Your task to perform on an android device: Open calendar and show me the fourth week of next month Image 0: 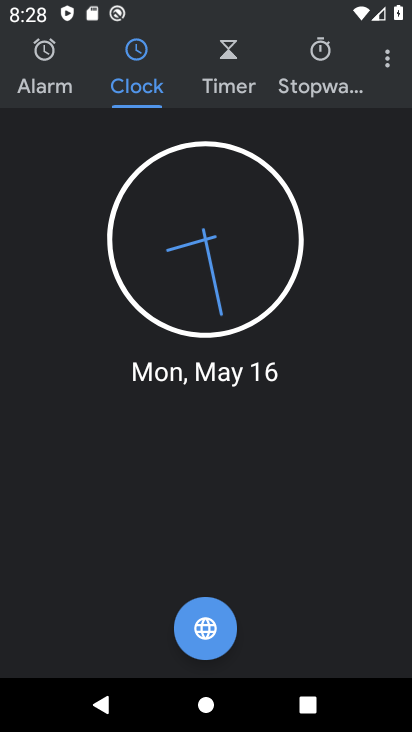
Step 0: press home button
Your task to perform on an android device: Open calendar and show me the fourth week of next month Image 1: 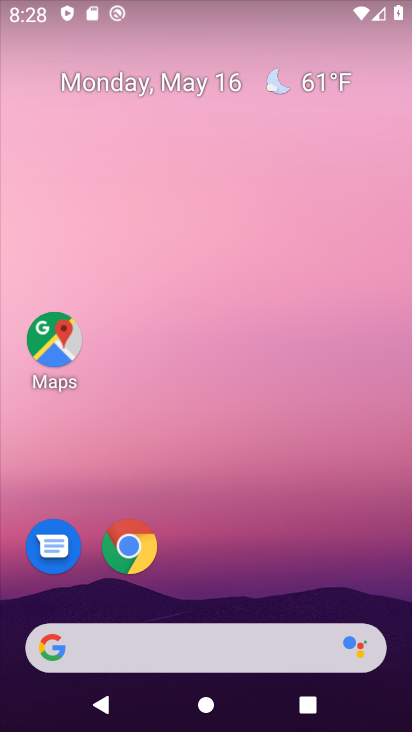
Step 1: drag from (278, 533) to (210, 222)
Your task to perform on an android device: Open calendar and show me the fourth week of next month Image 2: 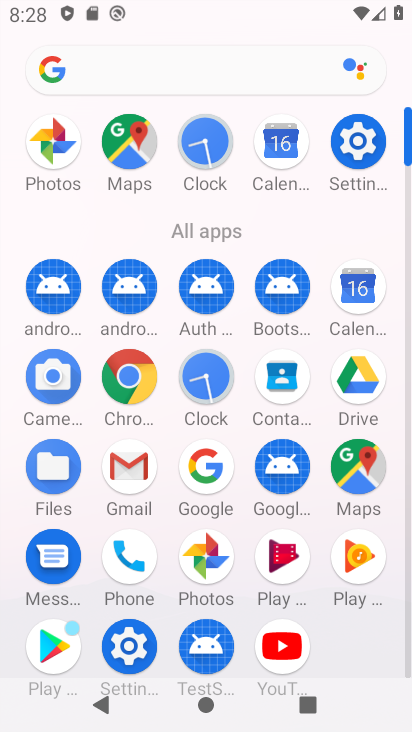
Step 2: click (352, 296)
Your task to perform on an android device: Open calendar and show me the fourth week of next month Image 3: 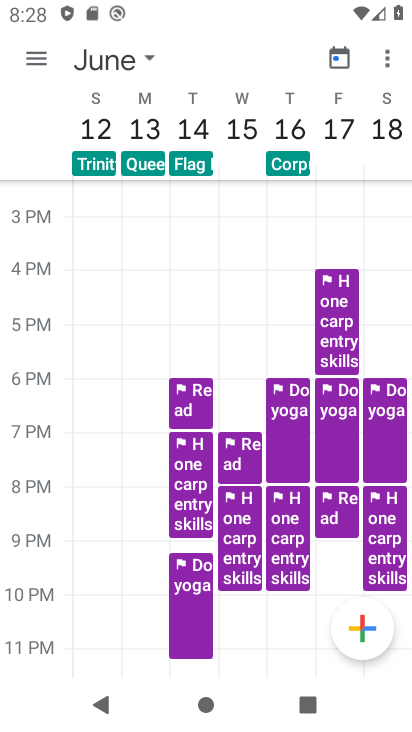
Step 3: click (35, 54)
Your task to perform on an android device: Open calendar and show me the fourth week of next month Image 4: 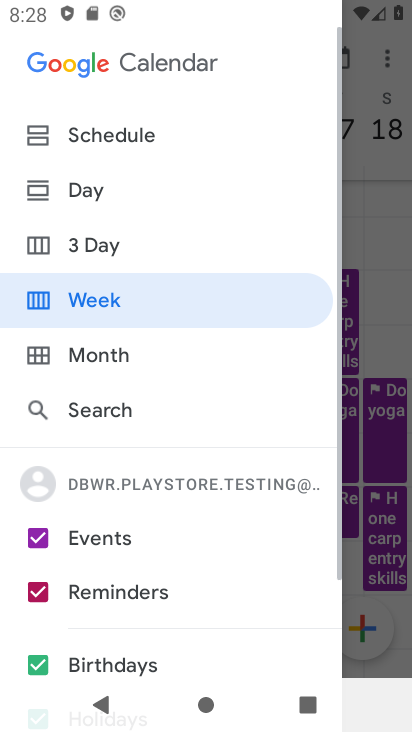
Step 4: click (381, 141)
Your task to perform on an android device: Open calendar and show me the fourth week of next month Image 5: 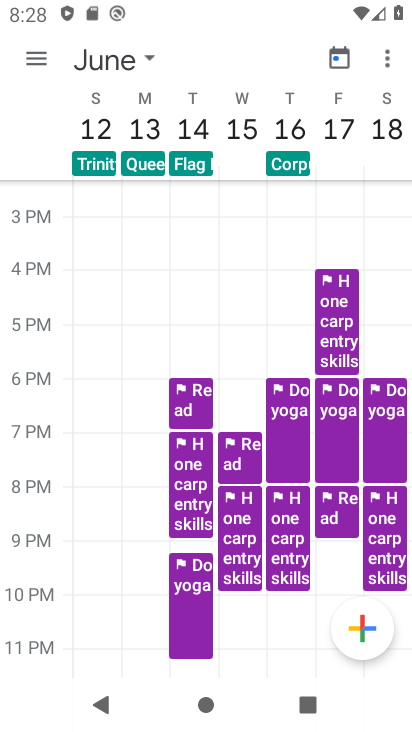
Step 5: click (146, 53)
Your task to perform on an android device: Open calendar and show me the fourth week of next month Image 6: 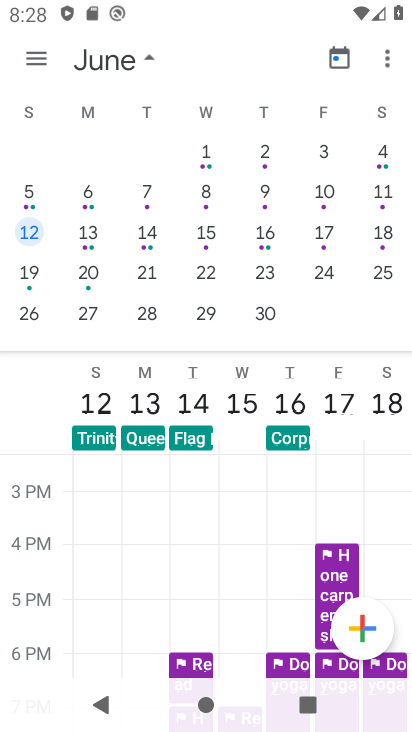
Step 6: click (83, 313)
Your task to perform on an android device: Open calendar and show me the fourth week of next month Image 7: 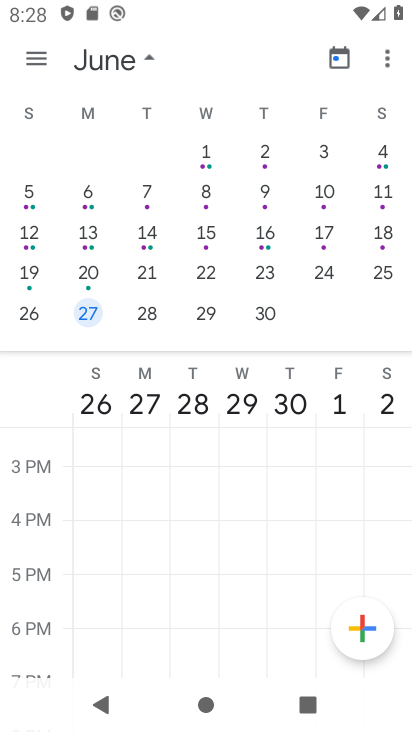
Step 7: task complete